Your task to perform on an android device: Go to notification settings Image 0: 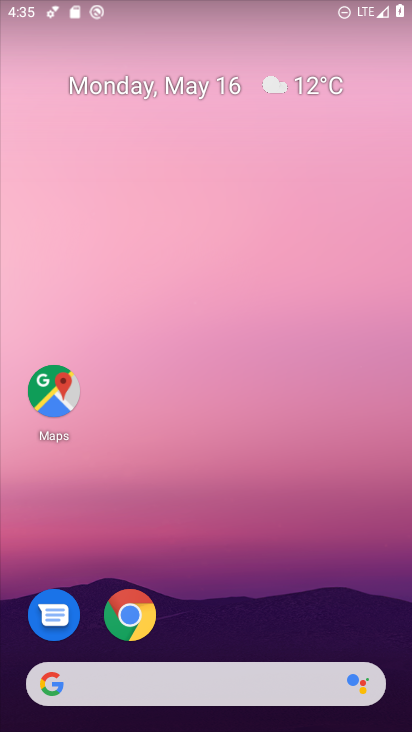
Step 0: drag from (219, 724) to (241, 72)
Your task to perform on an android device: Go to notification settings Image 1: 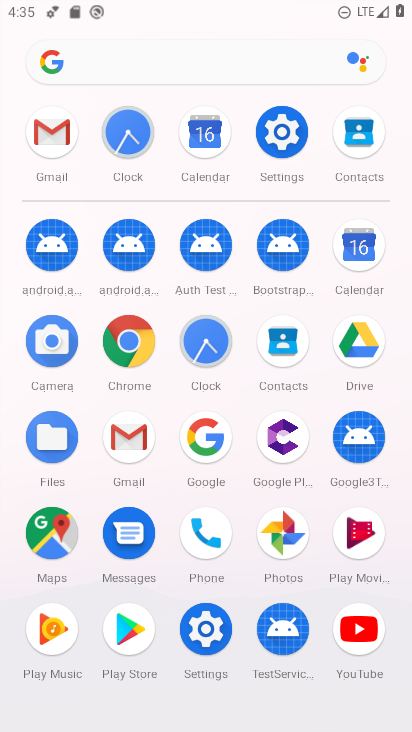
Step 1: click (282, 136)
Your task to perform on an android device: Go to notification settings Image 2: 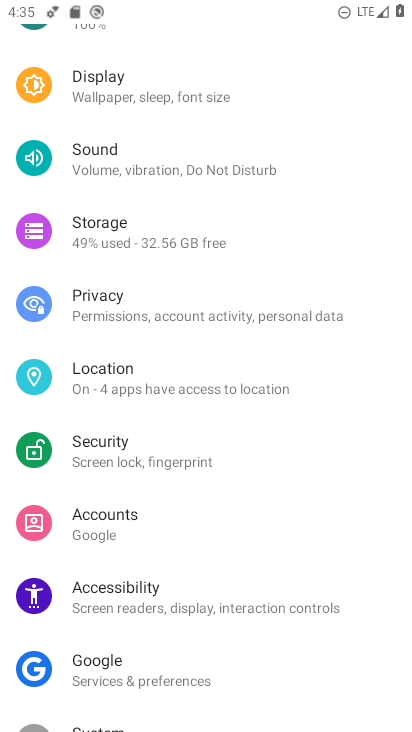
Step 2: drag from (245, 139) to (235, 581)
Your task to perform on an android device: Go to notification settings Image 3: 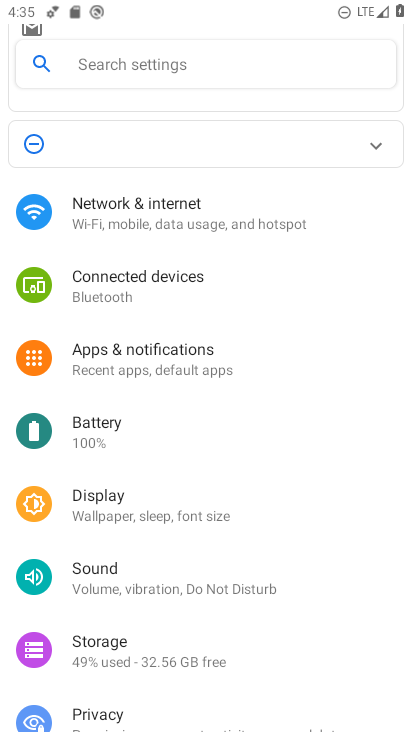
Step 3: click (158, 359)
Your task to perform on an android device: Go to notification settings Image 4: 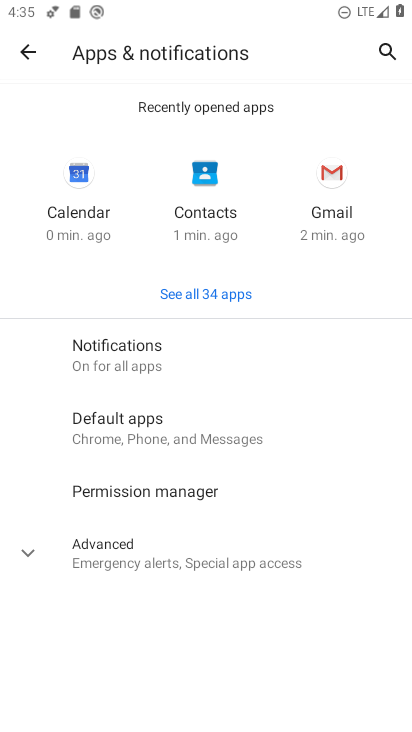
Step 4: click (122, 354)
Your task to perform on an android device: Go to notification settings Image 5: 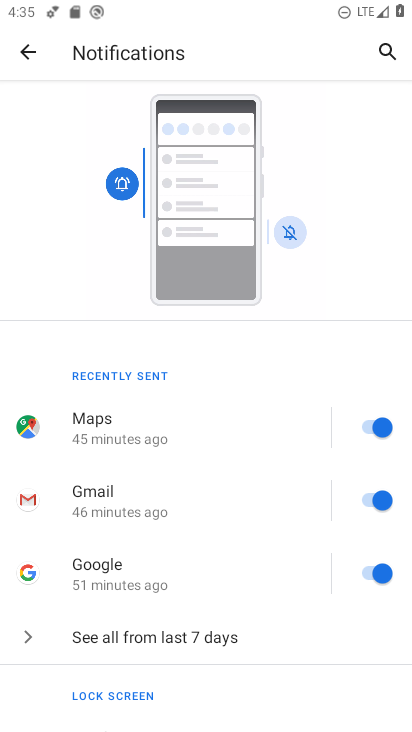
Step 5: task complete